Your task to perform on an android device: Search for Mexican restaurants on Maps Image 0: 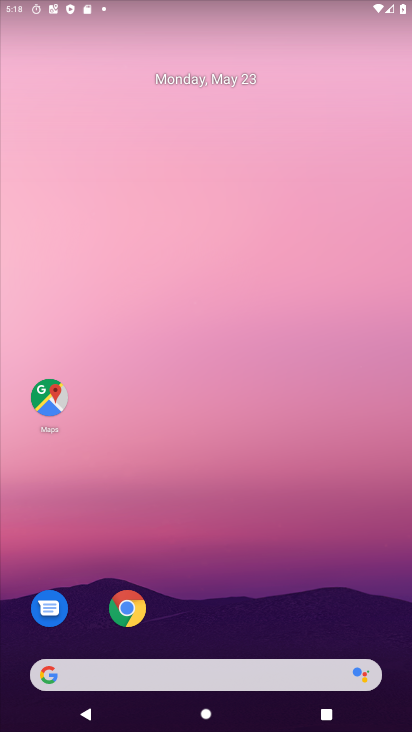
Step 0: click (57, 393)
Your task to perform on an android device: Search for Mexican restaurants on Maps Image 1: 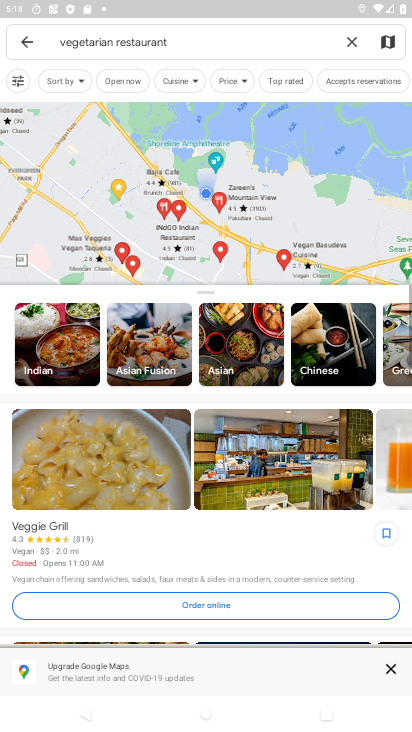
Step 1: click (92, 40)
Your task to perform on an android device: Search for Mexican restaurants on Maps Image 2: 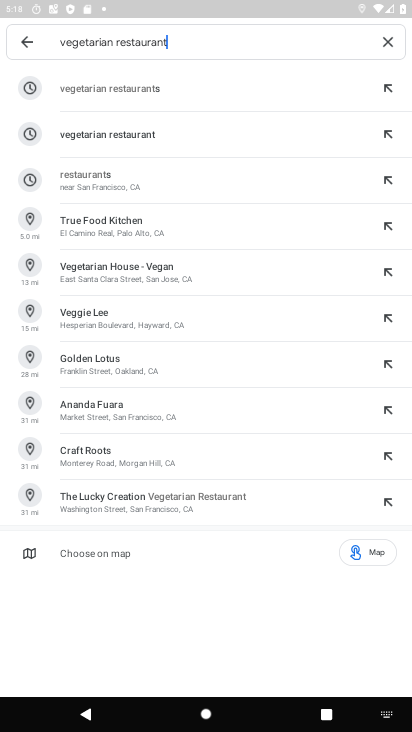
Step 2: click (84, 43)
Your task to perform on an android device: Search for Mexican restaurants on Maps Image 3: 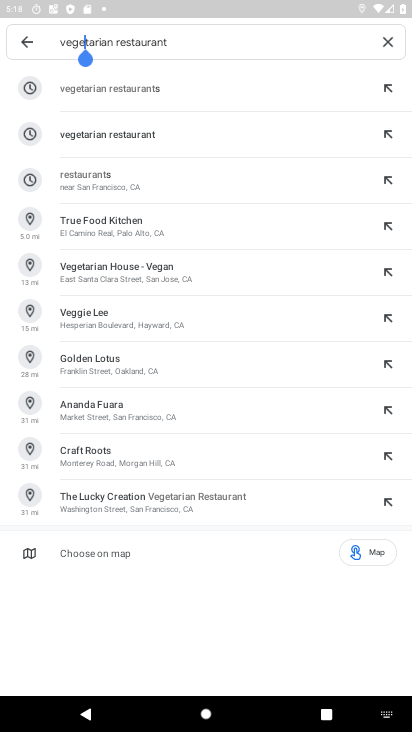
Step 3: click (93, 38)
Your task to perform on an android device: Search for Mexican restaurants on Maps Image 4: 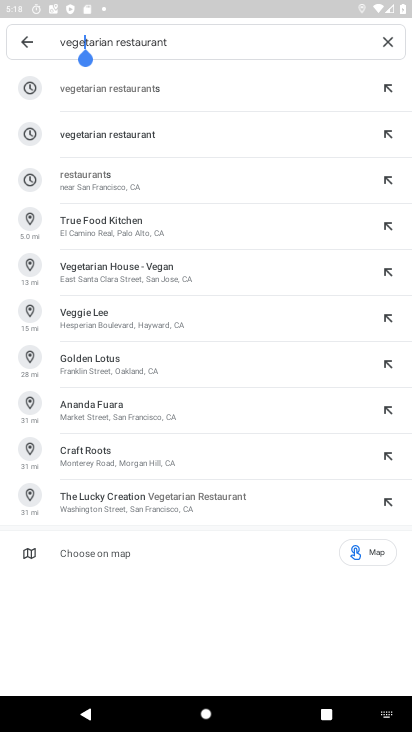
Step 4: click (93, 38)
Your task to perform on an android device: Search for Mexican restaurants on Maps Image 5: 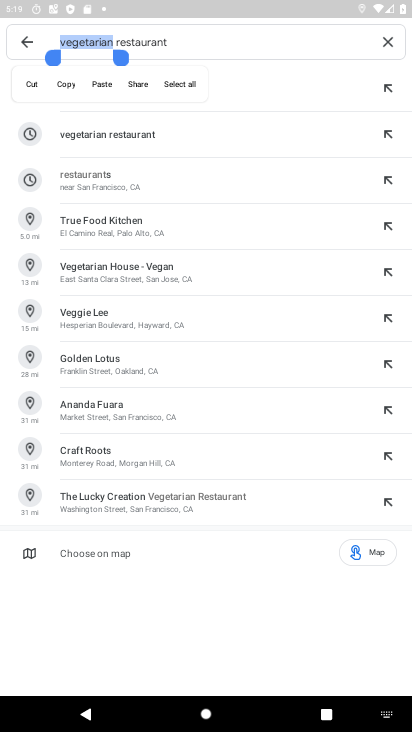
Step 5: type "Mexican"
Your task to perform on an android device: Search for Mexican restaurants on Maps Image 6: 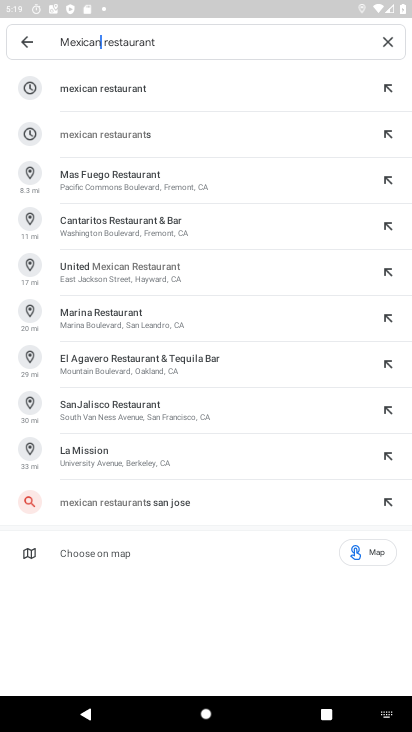
Step 6: click (211, 88)
Your task to perform on an android device: Search for Mexican restaurants on Maps Image 7: 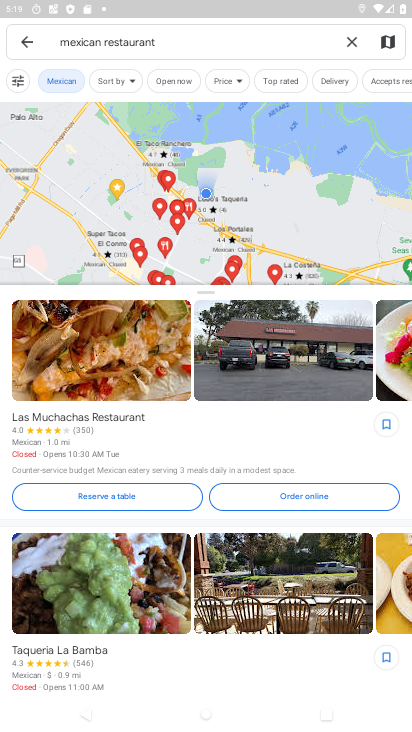
Step 7: task complete